Your task to perform on an android device: check the backup settings in the google photos Image 0: 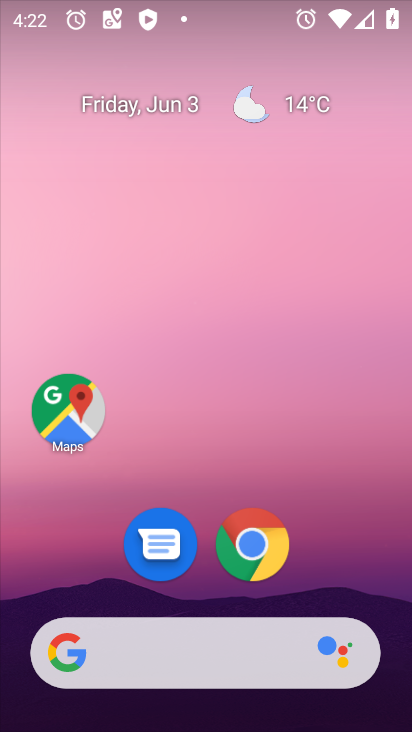
Step 0: drag from (394, 643) to (319, 213)
Your task to perform on an android device: check the backup settings in the google photos Image 1: 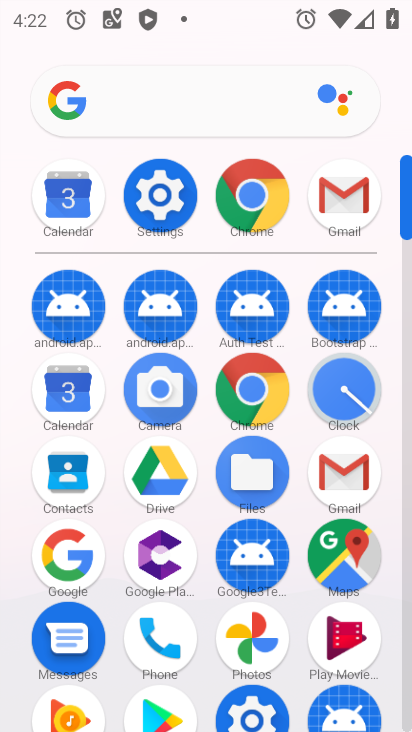
Step 1: click (405, 710)
Your task to perform on an android device: check the backup settings in the google photos Image 2: 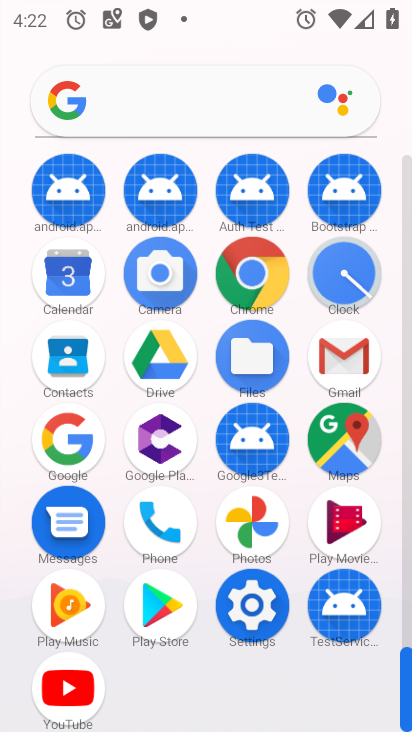
Step 2: click (252, 518)
Your task to perform on an android device: check the backup settings in the google photos Image 3: 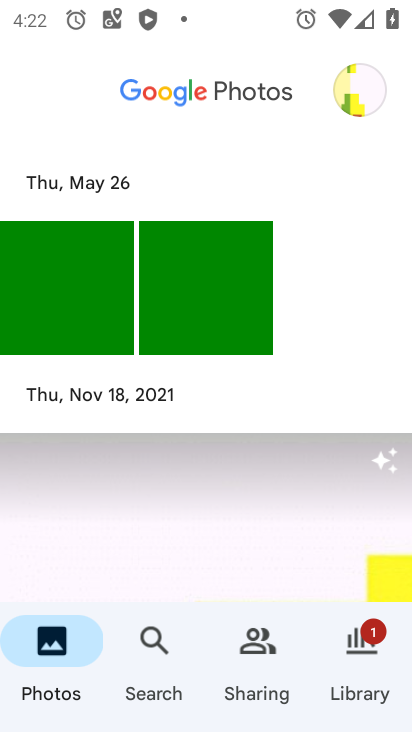
Step 3: click (363, 92)
Your task to perform on an android device: check the backup settings in the google photos Image 4: 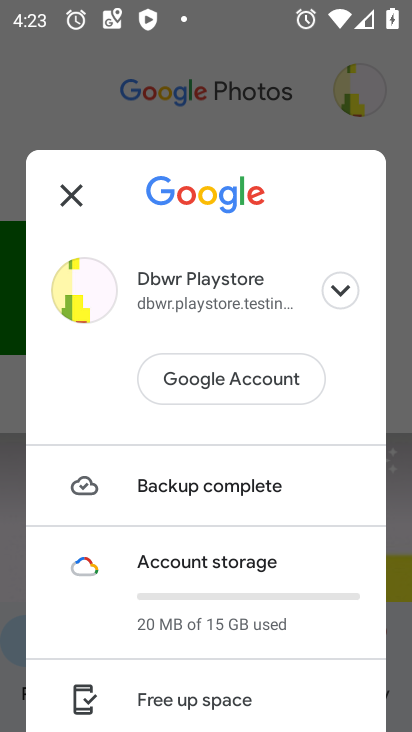
Step 4: drag from (285, 515) to (261, 86)
Your task to perform on an android device: check the backup settings in the google photos Image 5: 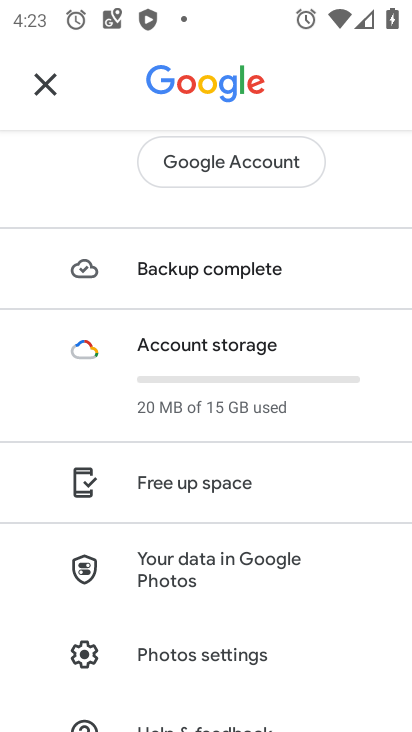
Step 5: click (179, 640)
Your task to perform on an android device: check the backup settings in the google photos Image 6: 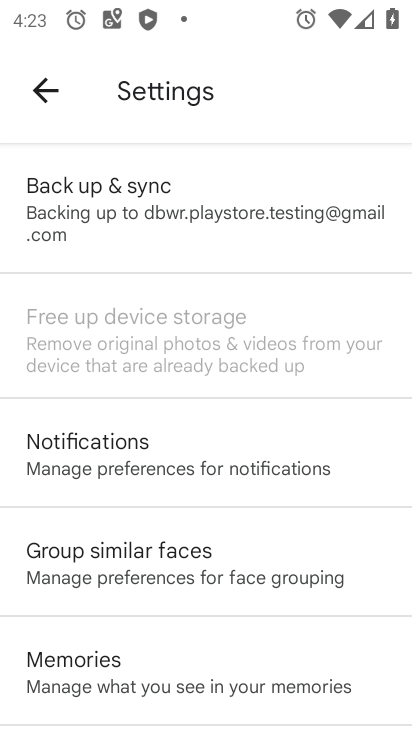
Step 6: click (108, 228)
Your task to perform on an android device: check the backup settings in the google photos Image 7: 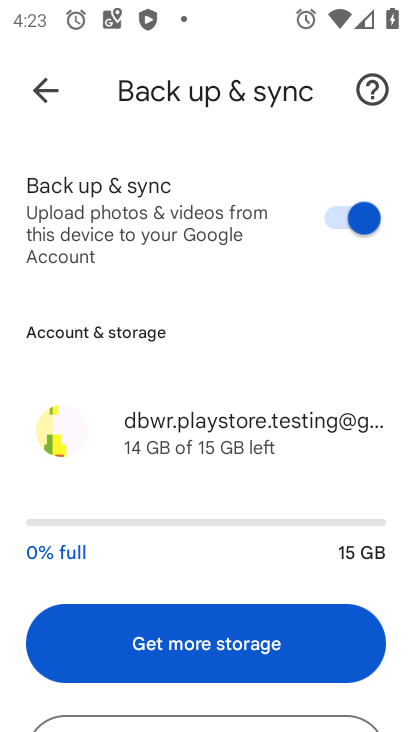
Step 7: task complete